Your task to perform on an android device: Go to settings Image 0: 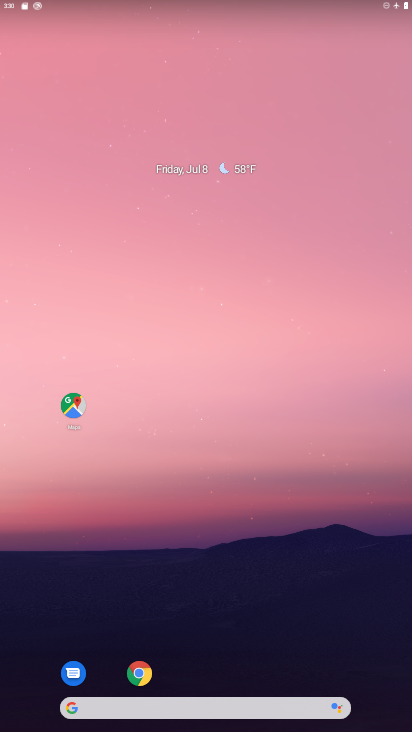
Step 0: drag from (224, 1) to (281, 364)
Your task to perform on an android device: Go to settings Image 1: 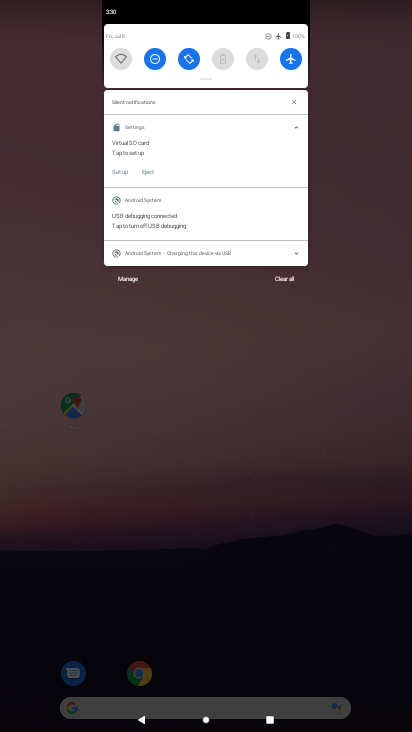
Step 1: click (298, 57)
Your task to perform on an android device: Go to settings Image 2: 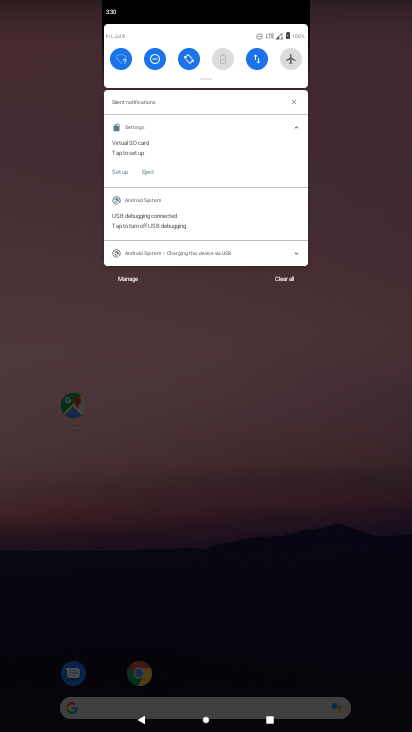
Step 2: drag from (204, 695) to (250, 381)
Your task to perform on an android device: Go to settings Image 3: 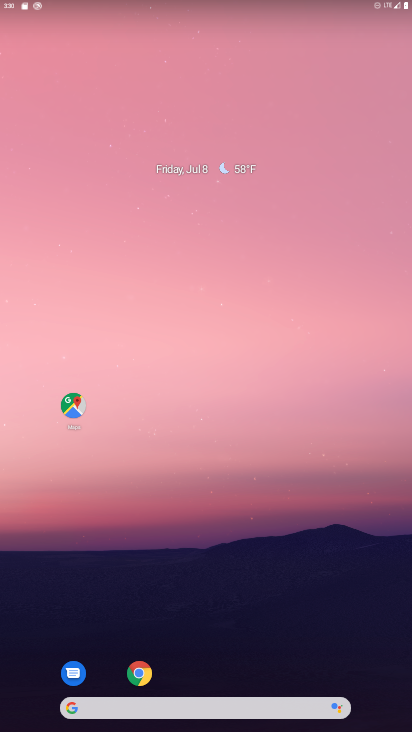
Step 3: drag from (192, 685) to (241, 391)
Your task to perform on an android device: Go to settings Image 4: 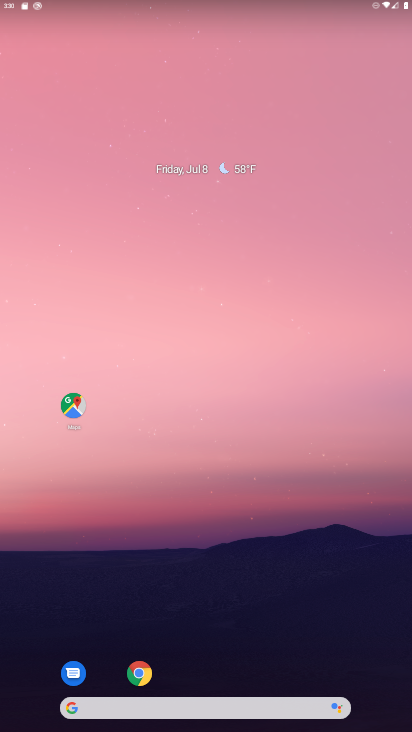
Step 4: drag from (240, 673) to (307, 271)
Your task to perform on an android device: Go to settings Image 5: 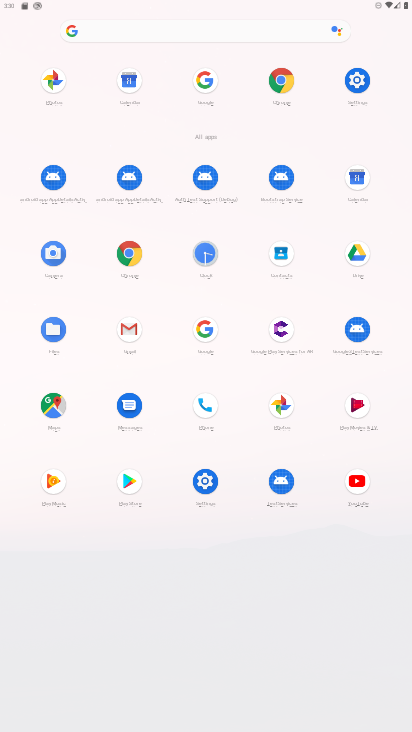
Step 5: click (370, 94)
Your task to perform on an android device: Go to settings Image 6: 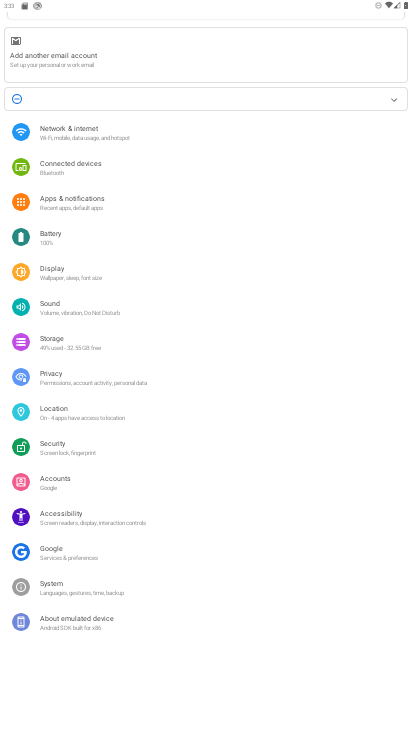
Step 6: task complete